Your task to perform on an android device: open chrome and create a bookmark for the current page Image 0: 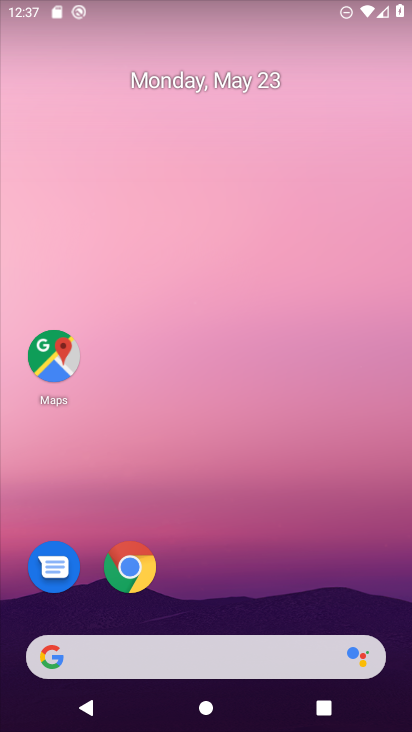
Step 0: click (120, 591)
Your task to perform on an android device: open chrome and create a bookmark for the current page Image 1: 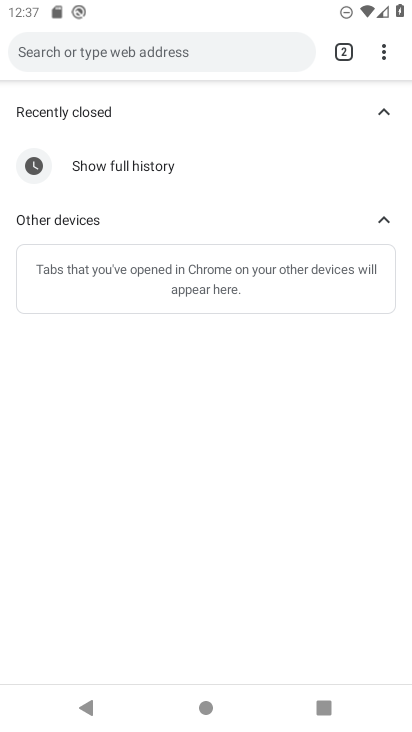
Step 1: click (390, 59)
Your task to perform on an android device: open chrome and create a bookmark for the current page Image 2: 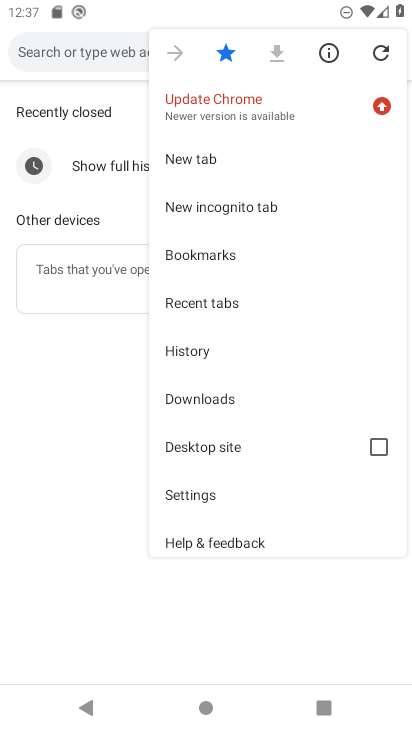
Step 2: task complete